Your task to perform on an android device: Go to location settings Image 0: 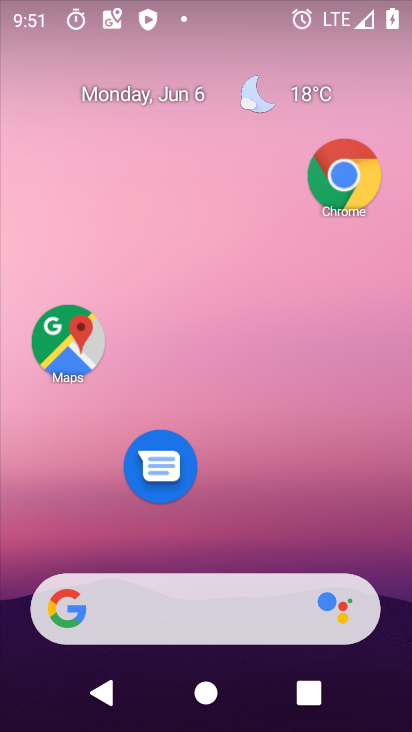
Step 0: click (227, 151)
Your task to perform on an android device: Go to location settings Image 1: 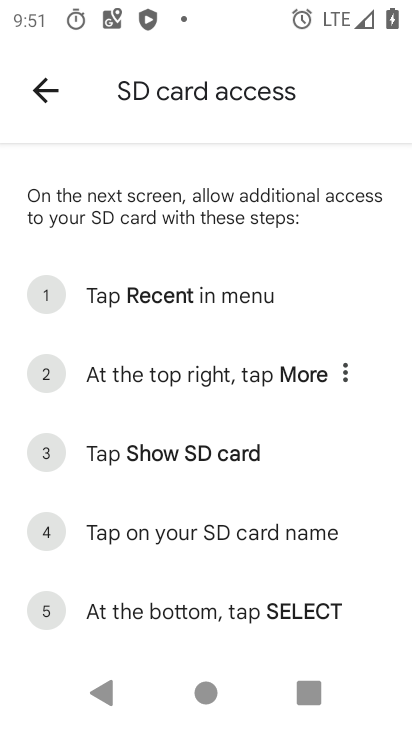
Step 1: drag from (195, 468) to (301, 5)
Your task to perform on an android device: Go to location settings Image 2: 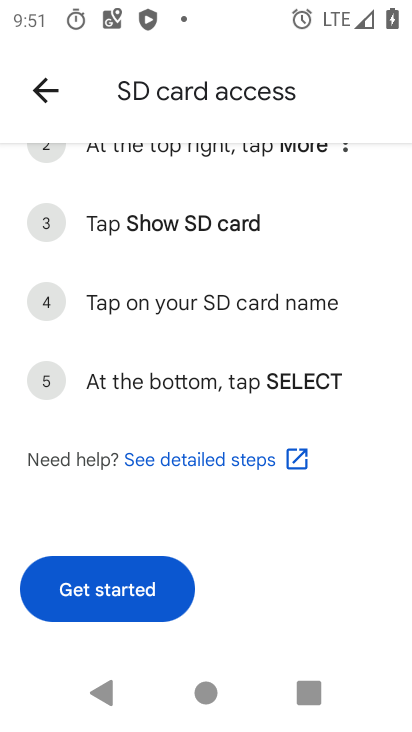
Step 2: press home button
Your task to perform on an android device: Go to location settings Image 3: 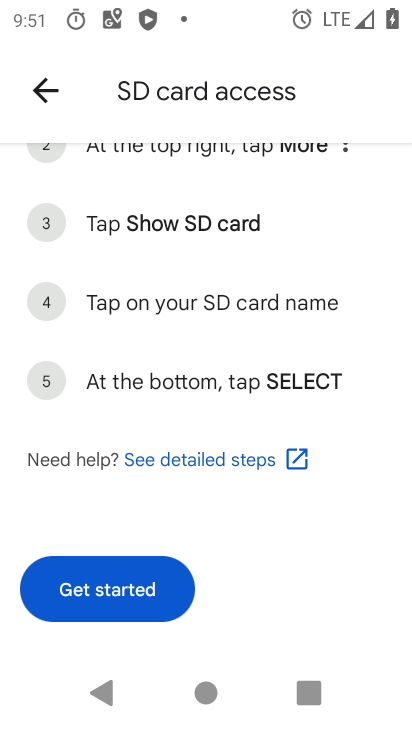
Step 3: drag from (301, 5) to (402, 504)
Your task to perform on an android device: Go to location settings Image 4: 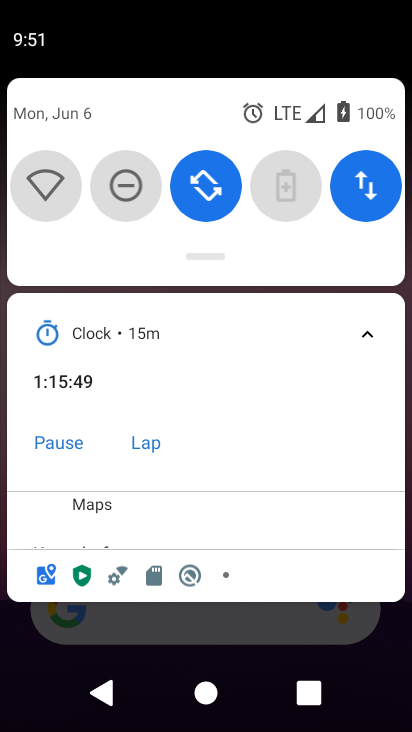
Step 4: drag from (221, 608) to (254, 25)
Your task to perform on an android device: Go to location settings Image 5: 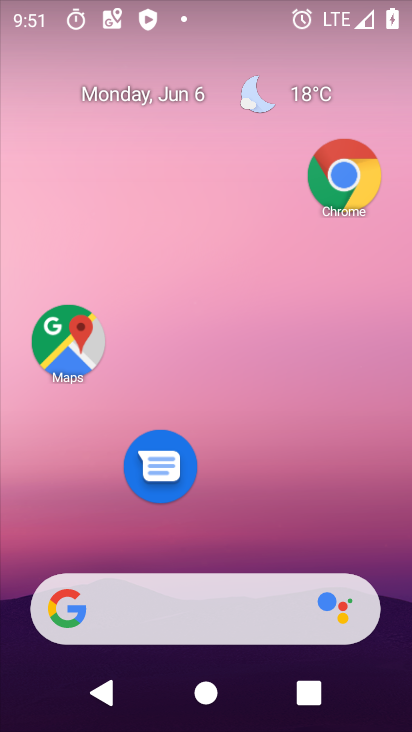
Step 5: drag from (187, 529) to (234, 182)
Your task to perform on an android device: Go to location settings Image 6: 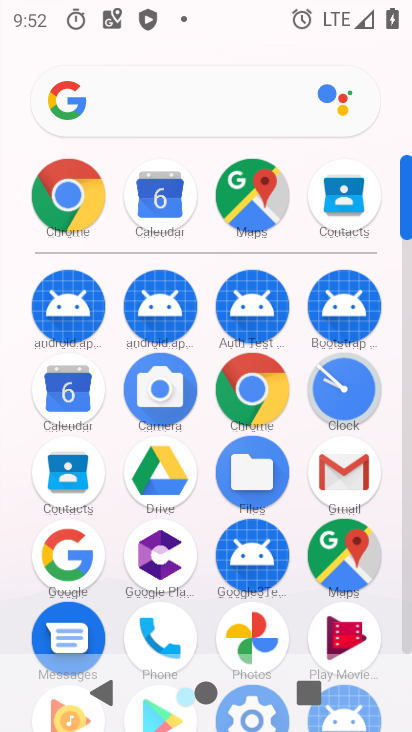
Step 6: drag from (221, 512) to (254, 286)
Your task to perform on an android device: Go to location settings Image 7: 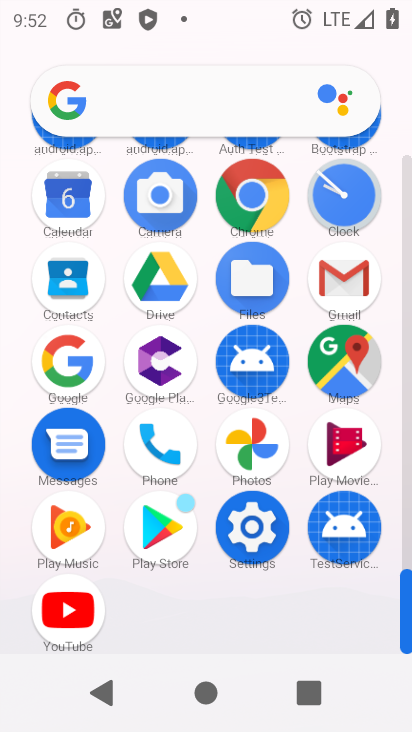
Step 7: click (251, 520)
Your task to perform on an android device: Go to location settings Image 8: 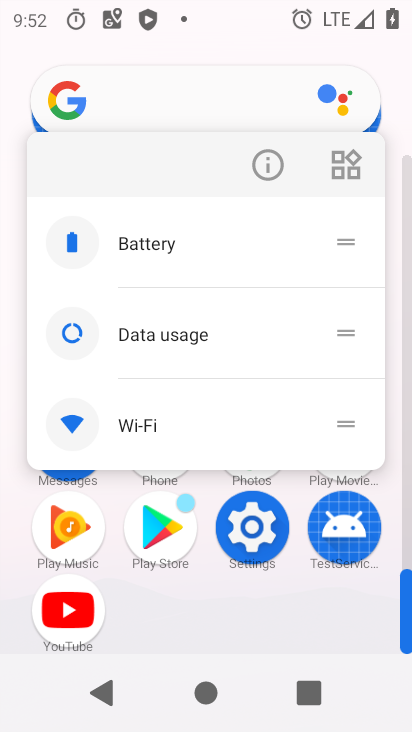
Step 8: click (277, 167)
Your task to perform on an android device: Go to location settings Image 9: 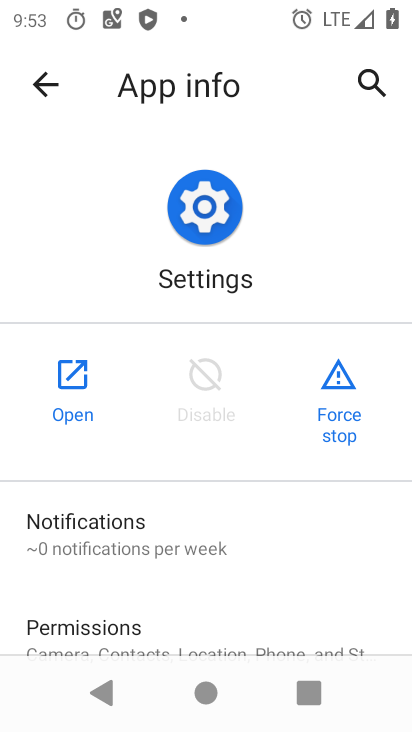
Step 9: click (32, 392)
Your task to perform on an android device: Go to location settings Image 10: 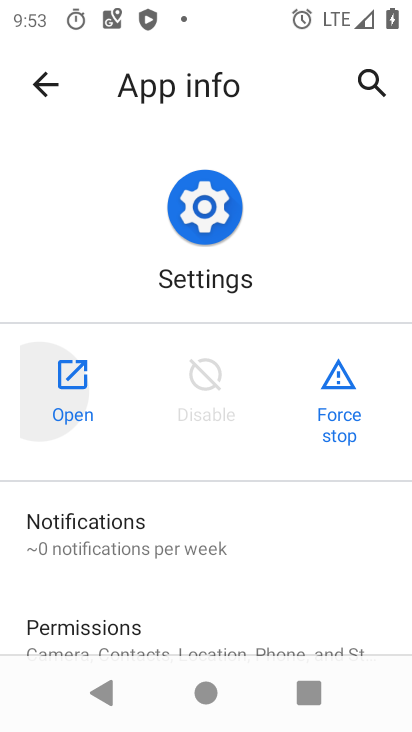
Step 10: click (62, 393)
Your task to perform on an android device: Go to location settings Image 11: 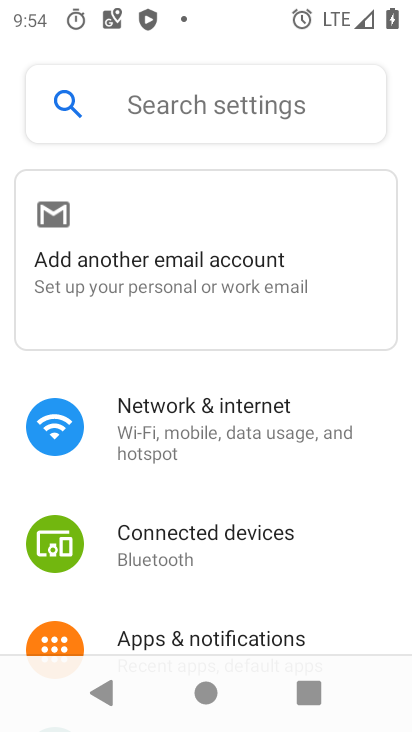
Step 11: drag from (189, 550) to (373, 32)
Your task to perform on an android device: Go to location settings Image 12: 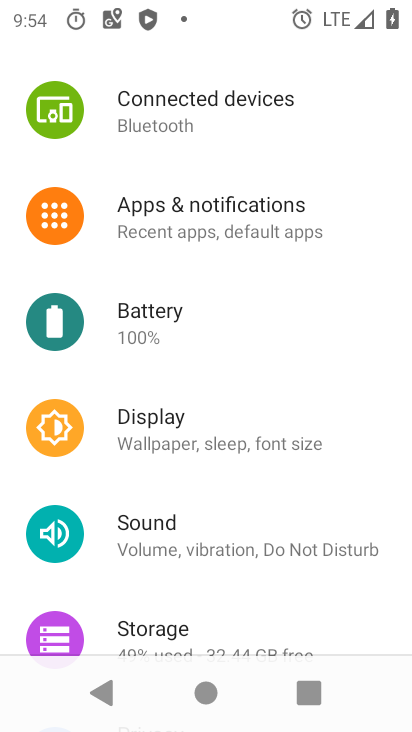
Step 12: drag from (196, 512) to (276, 8)
Your task to perform on an android device: Go to location settings Image 13: 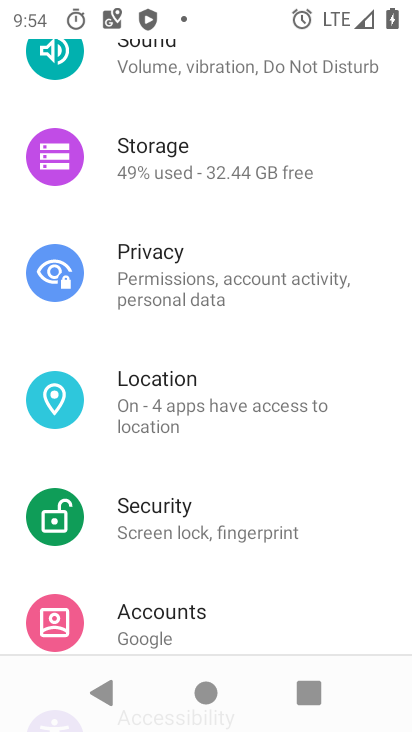
Step 13: click (213, 397)
Your task to perform on an android device: Go to location settings Image 14: 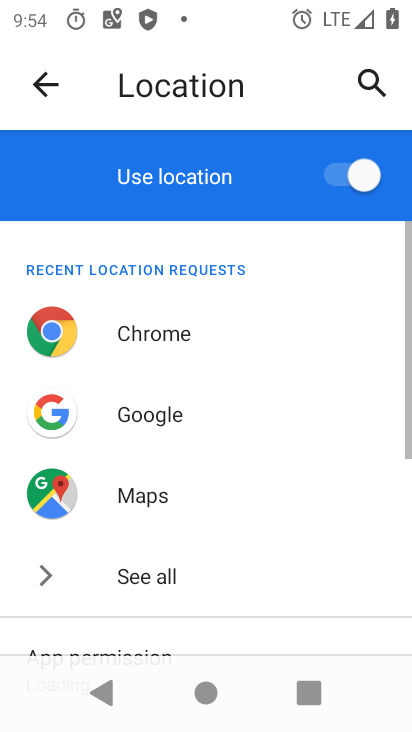
Step 14: task complete